Your task to perform on an android device: open the mobile data screen to see how much data has been used Image 0: 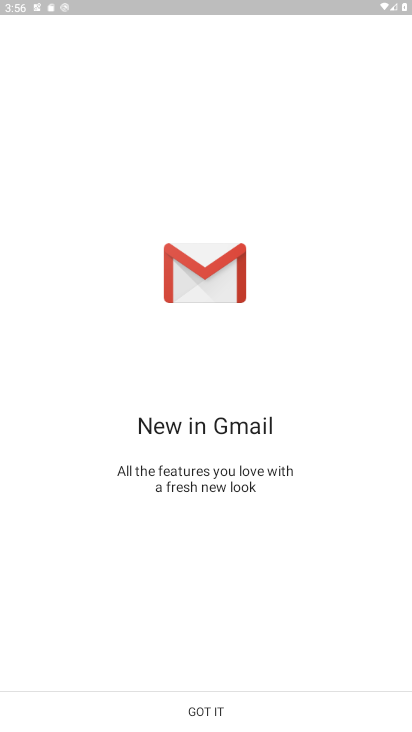
Step 0: click (325, 704)
Your task to perform on an android device: open the mobile data screen to see how much data has been used Image 1: 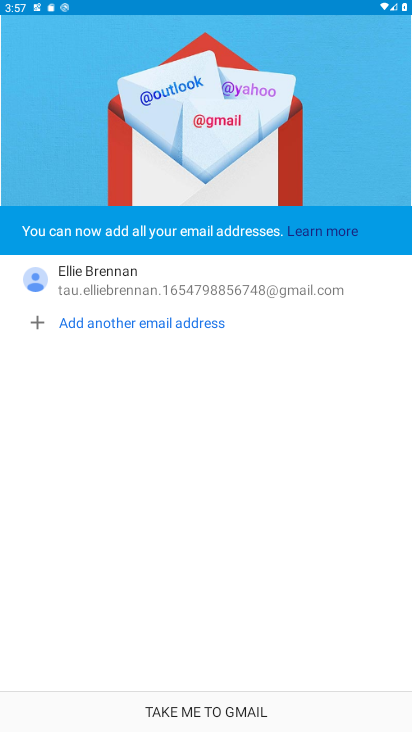
Step 1: press home button
Your task to perform on an android device: open the mobile data screen to see how much data has been used Image 2: 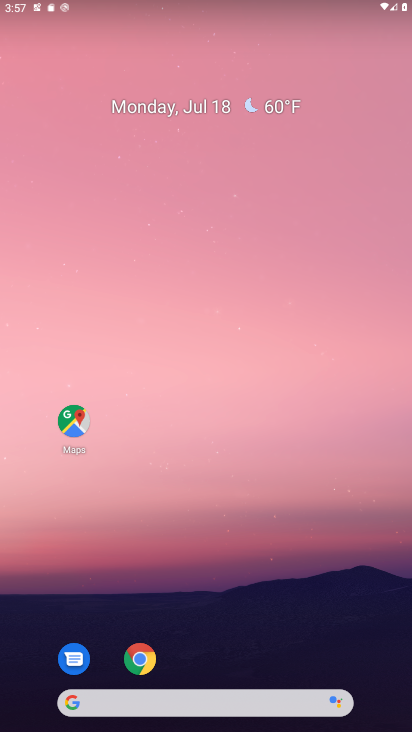
Step 2: drag from (216, 683) to (203, 2)
Your task to perform on an android device: open the mobile data screen to see how much data has been used Image 3: 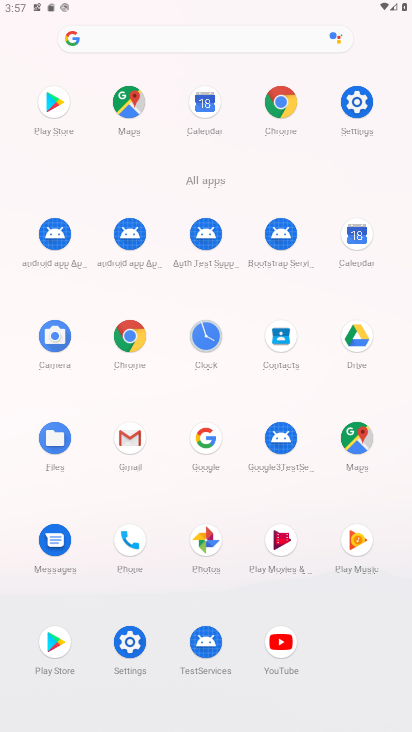
Step 3: click (349, 94)
Your task to perform on an android device: open the mobile data screen to see how much data has been used Image 4: 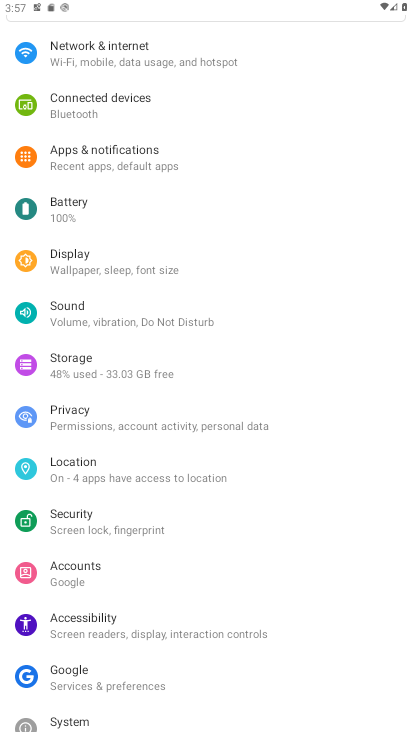
Step 4: click (126, 53)
Your task to perform on an android device: open the mobile data screen to see how much data has been used Image 5: 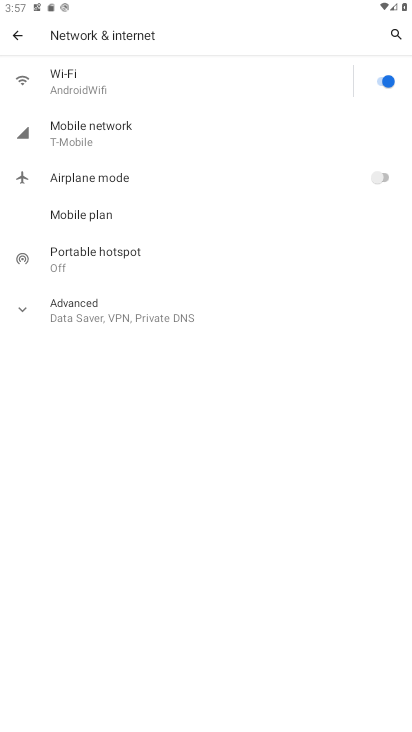
Step 5: click (153, 132)
Your task to perform on an android device: open the mobile data screen to see how much data has been used Image 6: 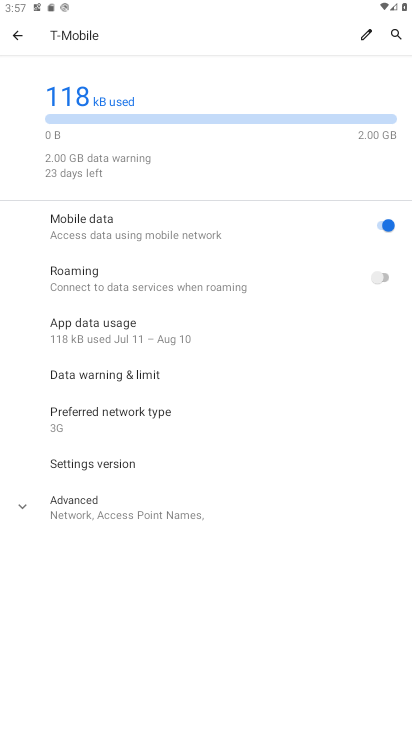
Step 6: task complete